Your task to perform on an android device: open app "Etsy: Buy & Sell Unique Items" (install if not already installed) Image 0: 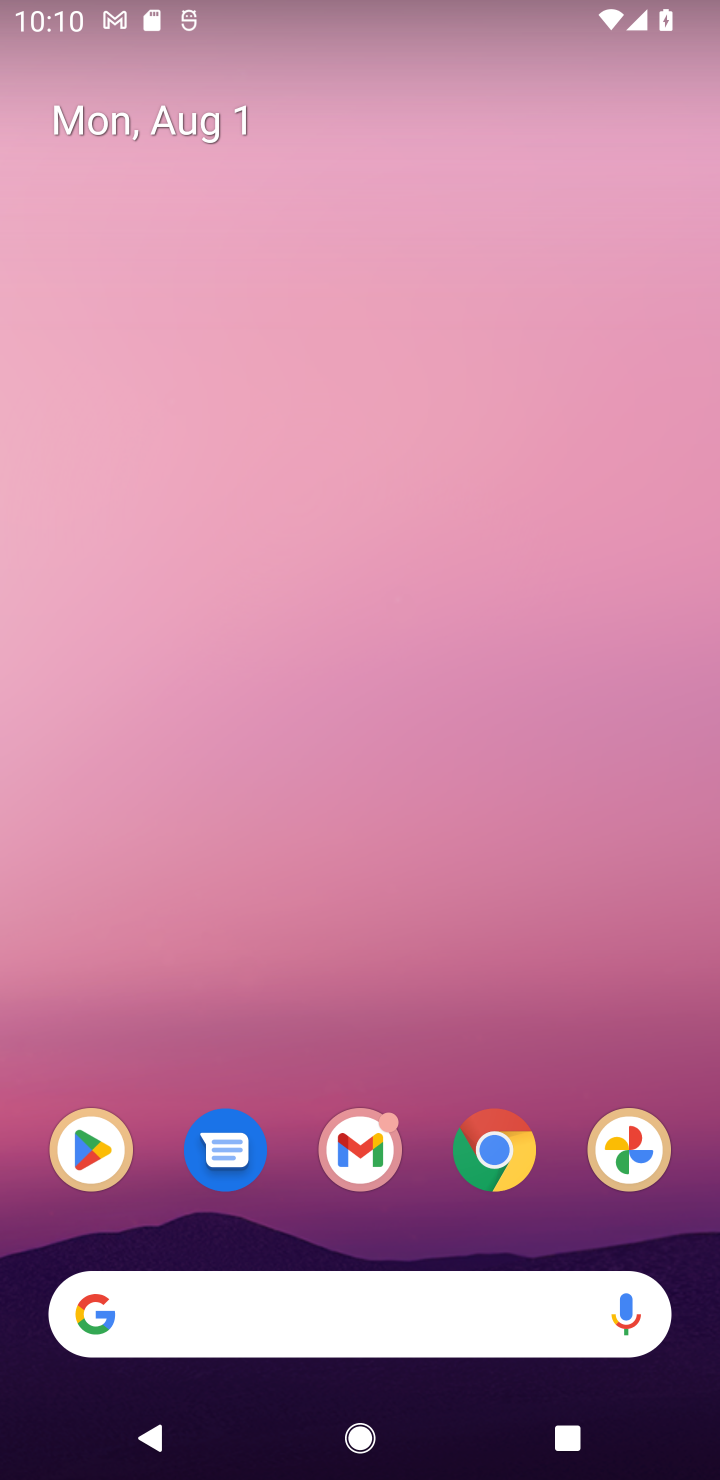
Step 0: drag from (400, 1279) to (356, 22)
Your task to perform on an android device: open app "Etsy: Buy & Sell Unique Items" (install if not already installed) Image 1: 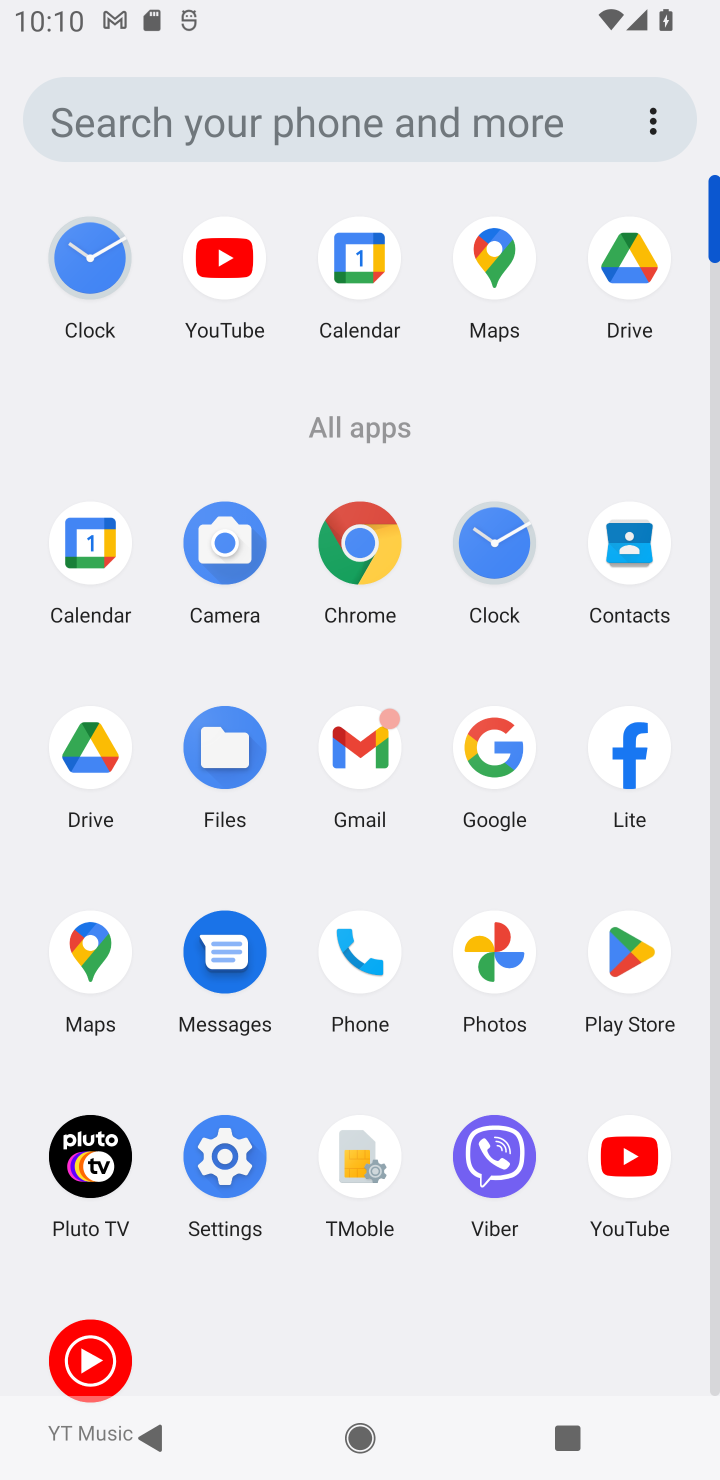
Step 1: click (596, 997)
Your task to perform on an android device: open app "Etsy: Buy & Sell Unique Items" (install if not already installed) Image 2: 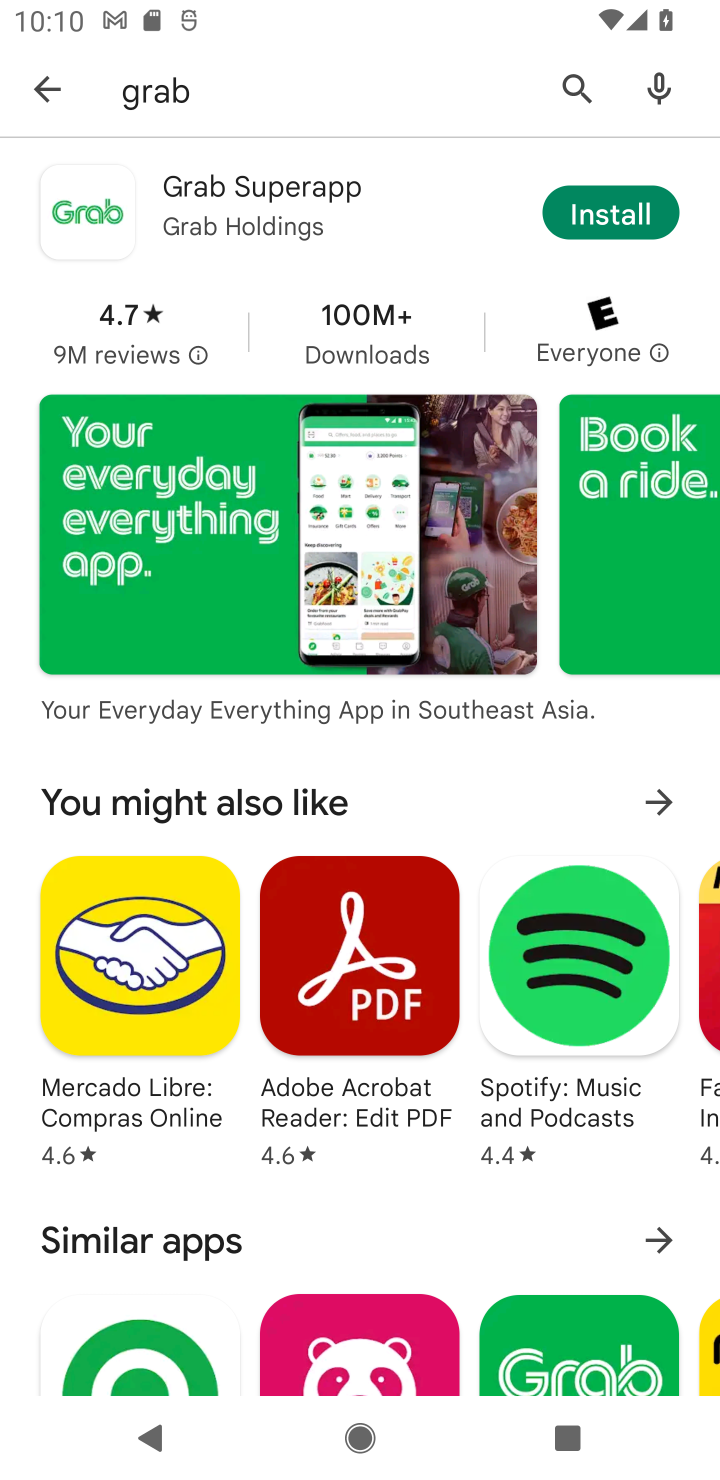
Step 2: click (586, 73)
Your task to perform on an android device: open app "Etsy: Buy & Sell Unique Items" (install if not already installed) Image 3: 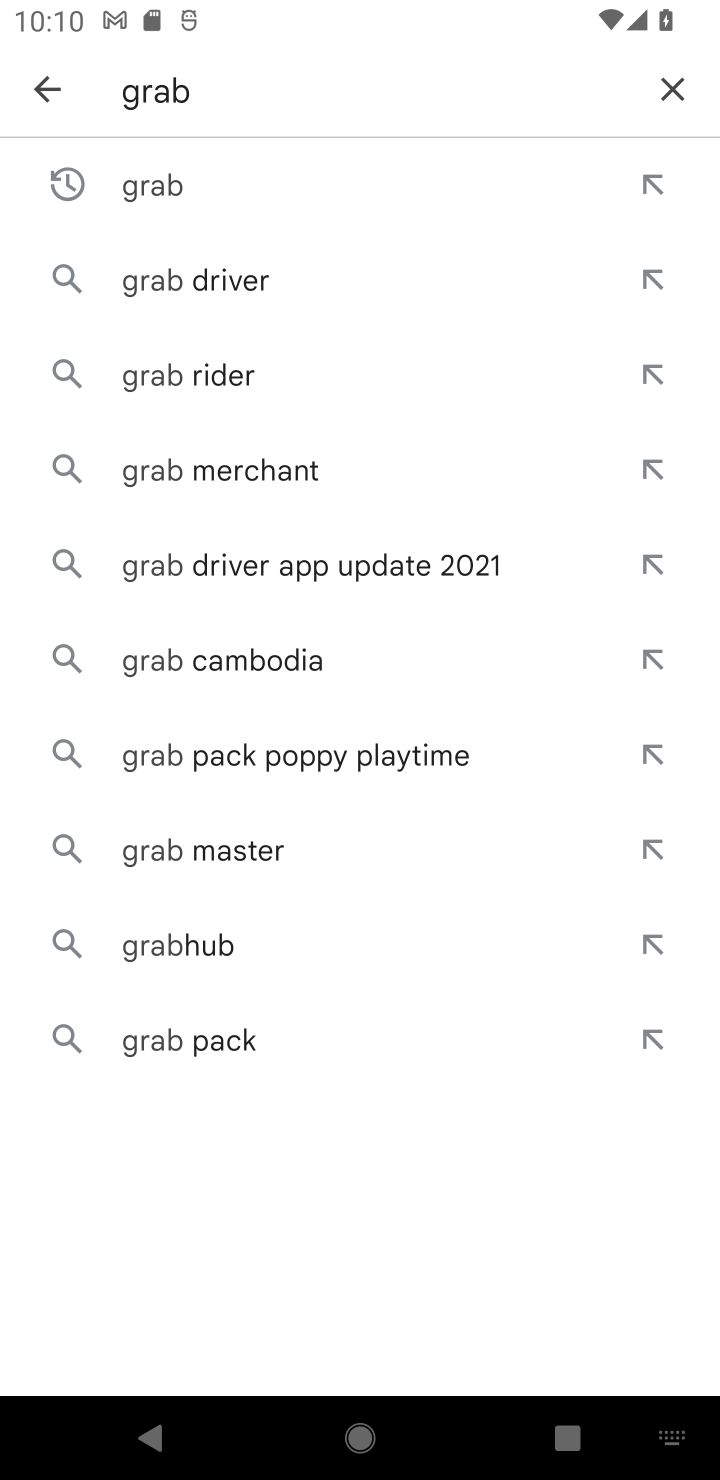
Step 3: click (671, 85)
Your task to perform on an android device: open app "Etsy: Buy & Sell Unique Items" (install if not already installed) Image 4: 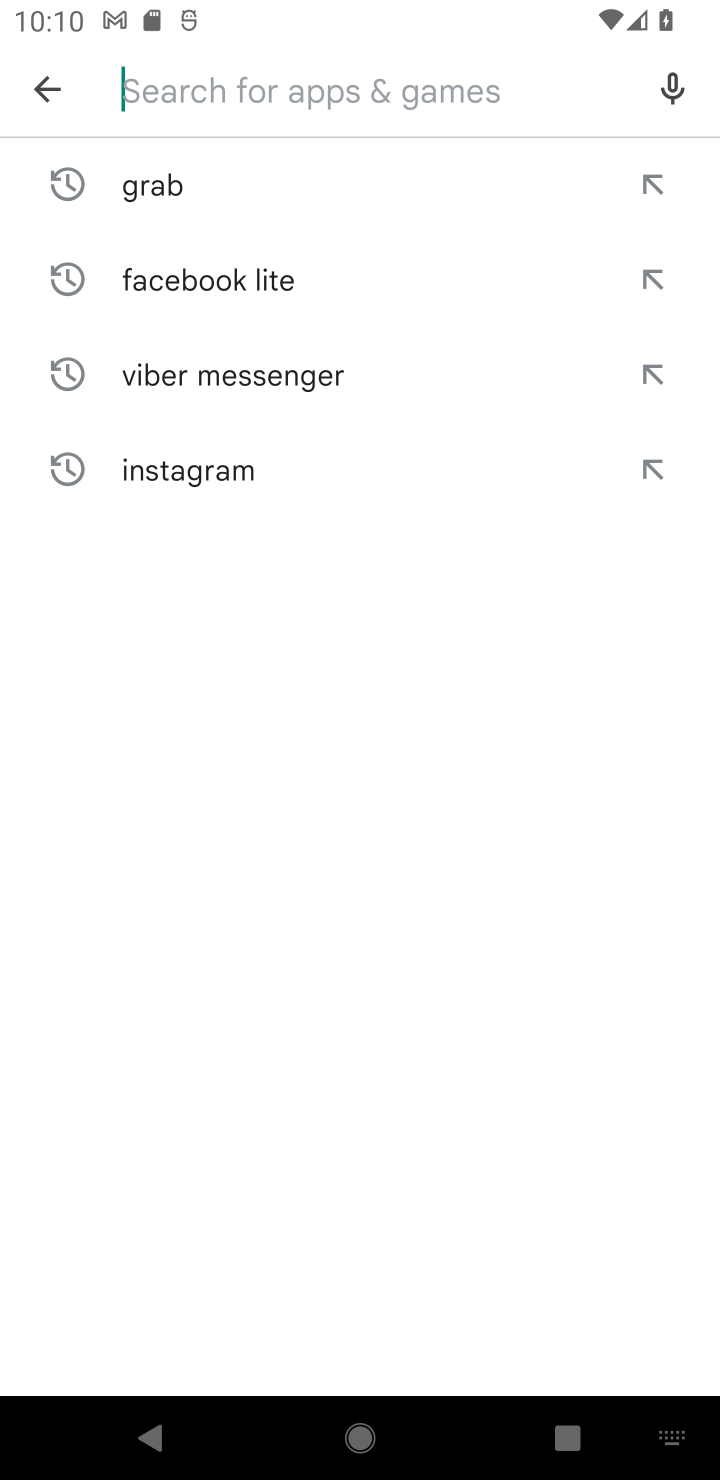
Step 4: type "Etsy: Buy & Sell Unique Items"
Your task to perform on an android device: open app "Etsy: Buy & Sell Unique Items" (install if not already installed) Image 5: 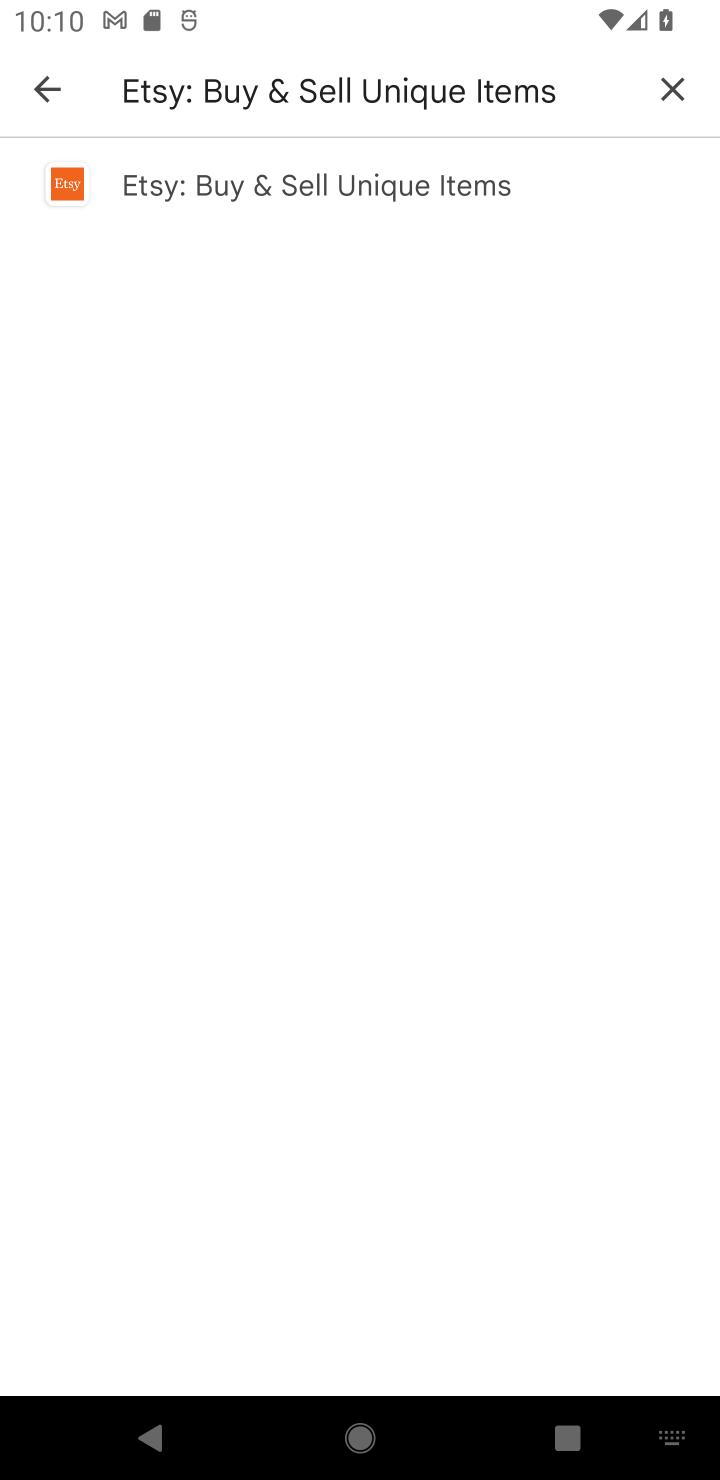
Step 5: click (266, 173)
Your task to perform on an android device: open app "Etsy: Buy & Sell Unique Items" (install if not already installed) Image 6: 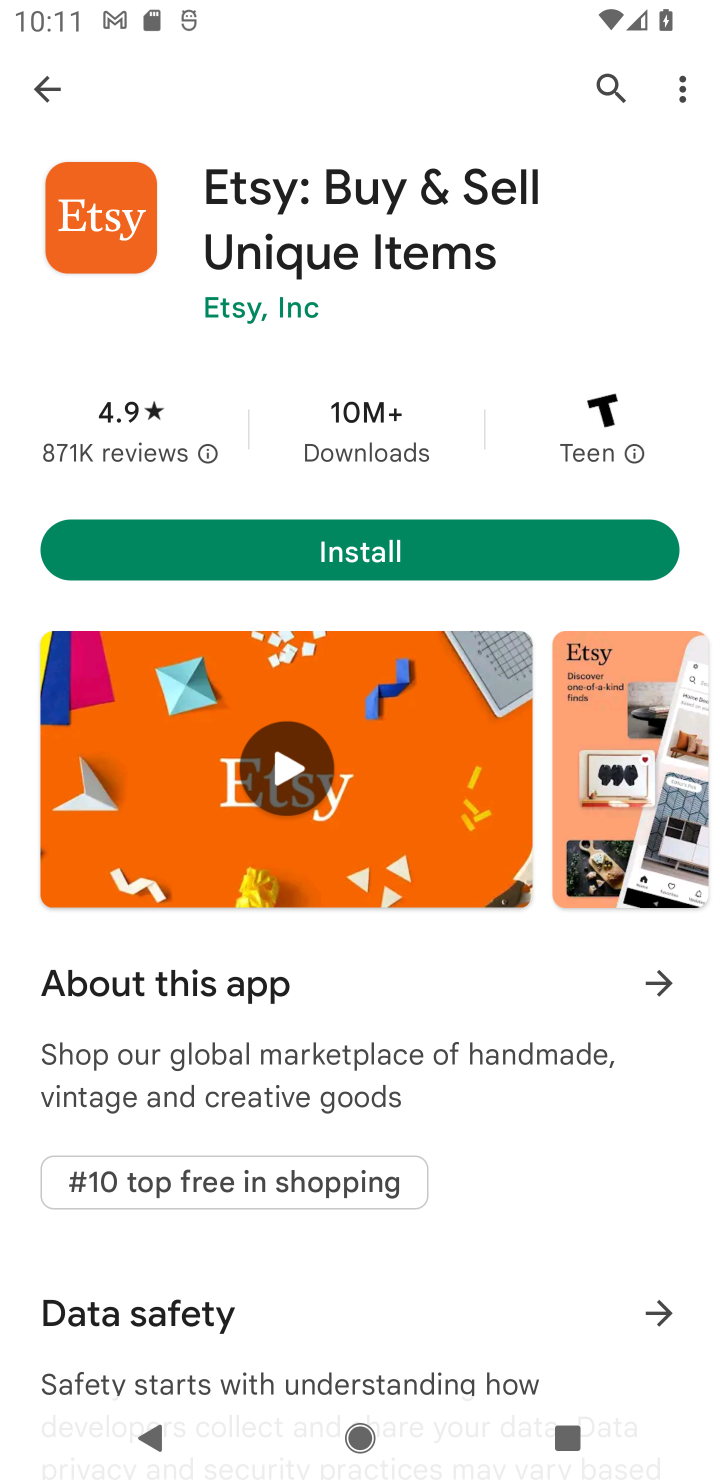
Step 6: click (377, 550)
Your task to perform on an android device: open app "Etsy: Buy & Sell Unique Items" (install if not already installed) Image 7: 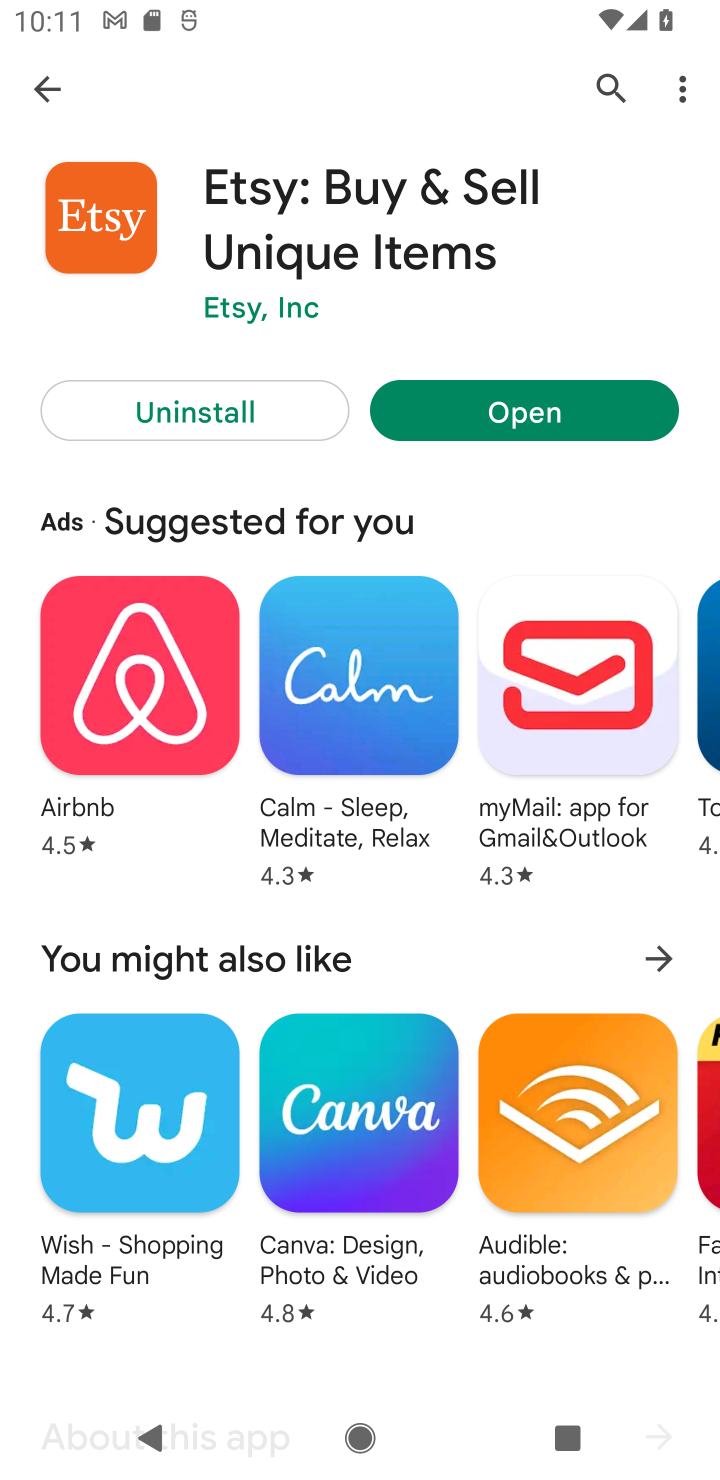
Step 7: click (520, 453)
Your task to perform on an android device: open app "Etsy: Buy & Sell Unique Items" (install if not already installed) Image 8: 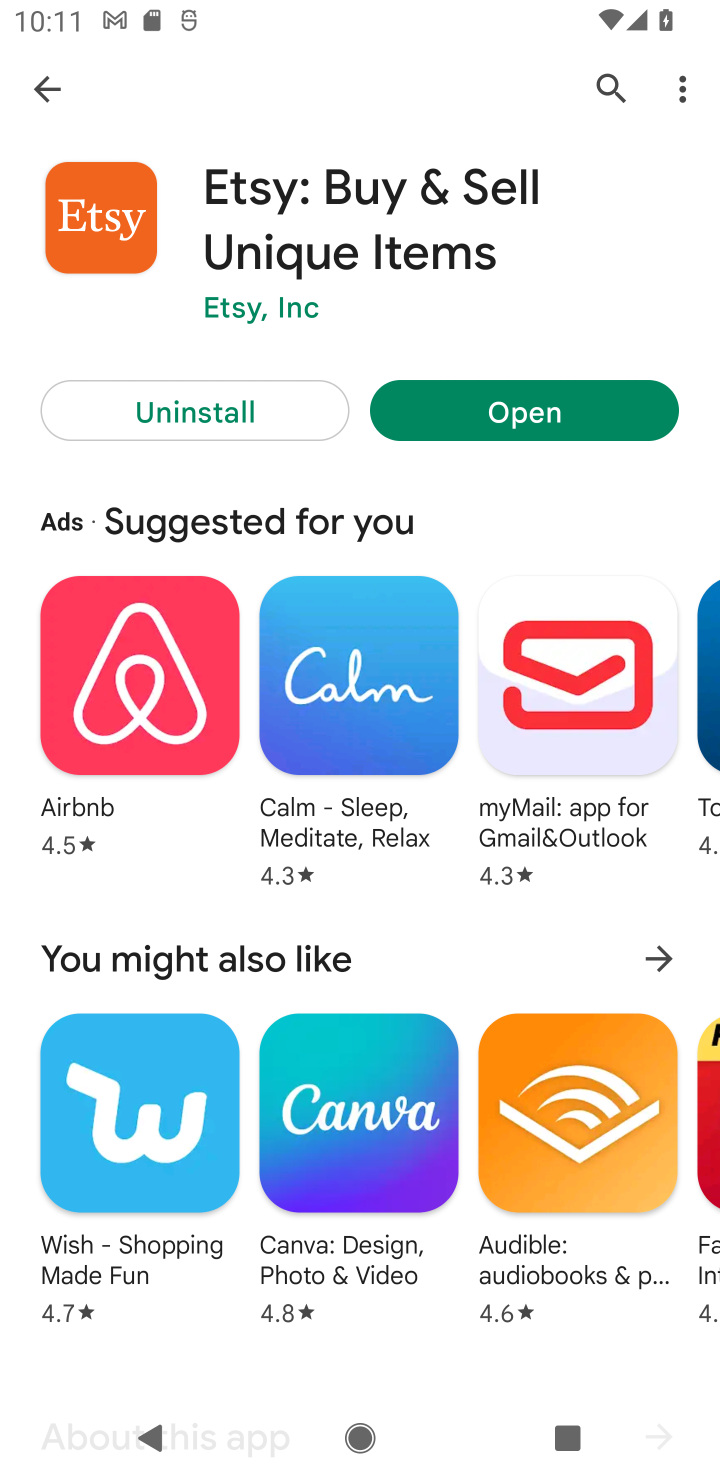
Step 8: click (516, 450)
Your task to perform on an android device: open app "Etsy: Buy & Sell Unique Items" (install if not already installed) Image 9: 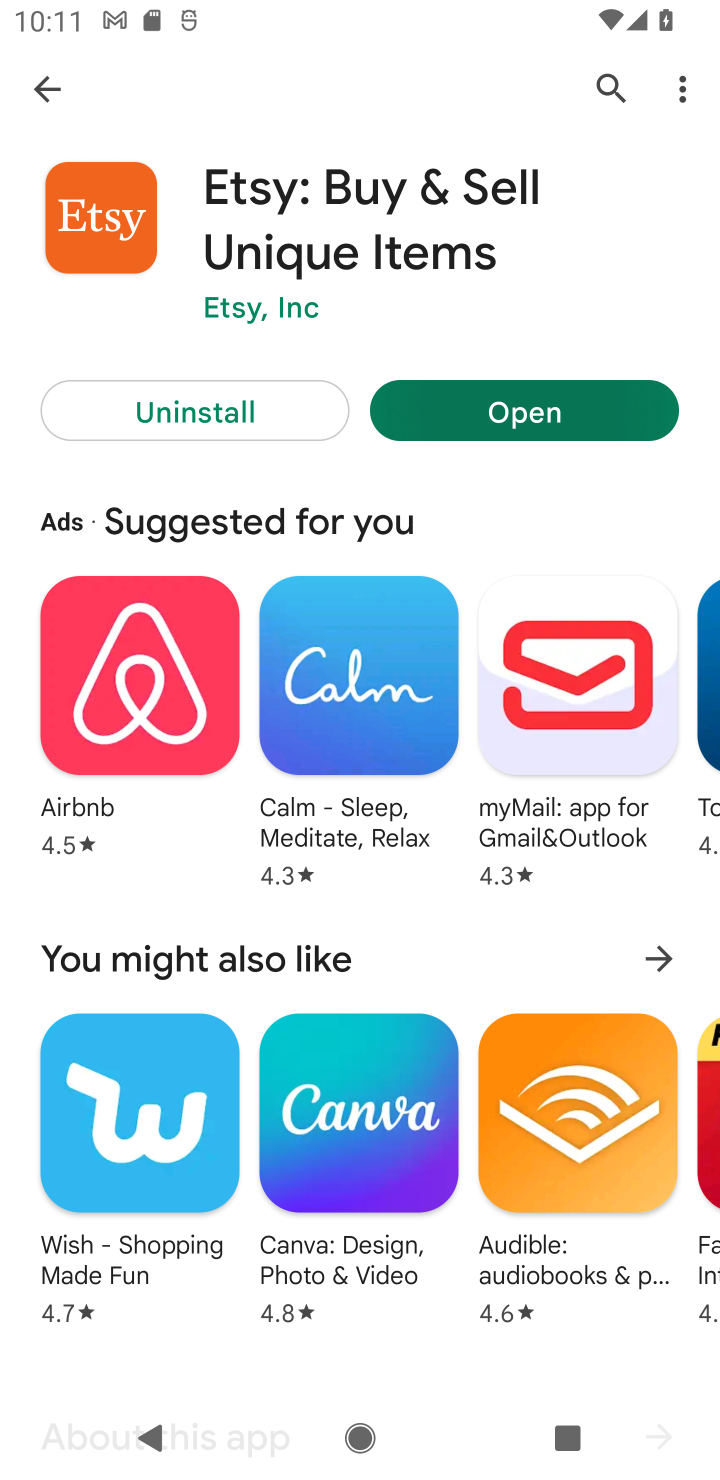
Step 9: click (503, 436)
Your task to perform on an android device: open app "Etsy: Buy & Sell Unique Items" (install if not already installed) Image 10: 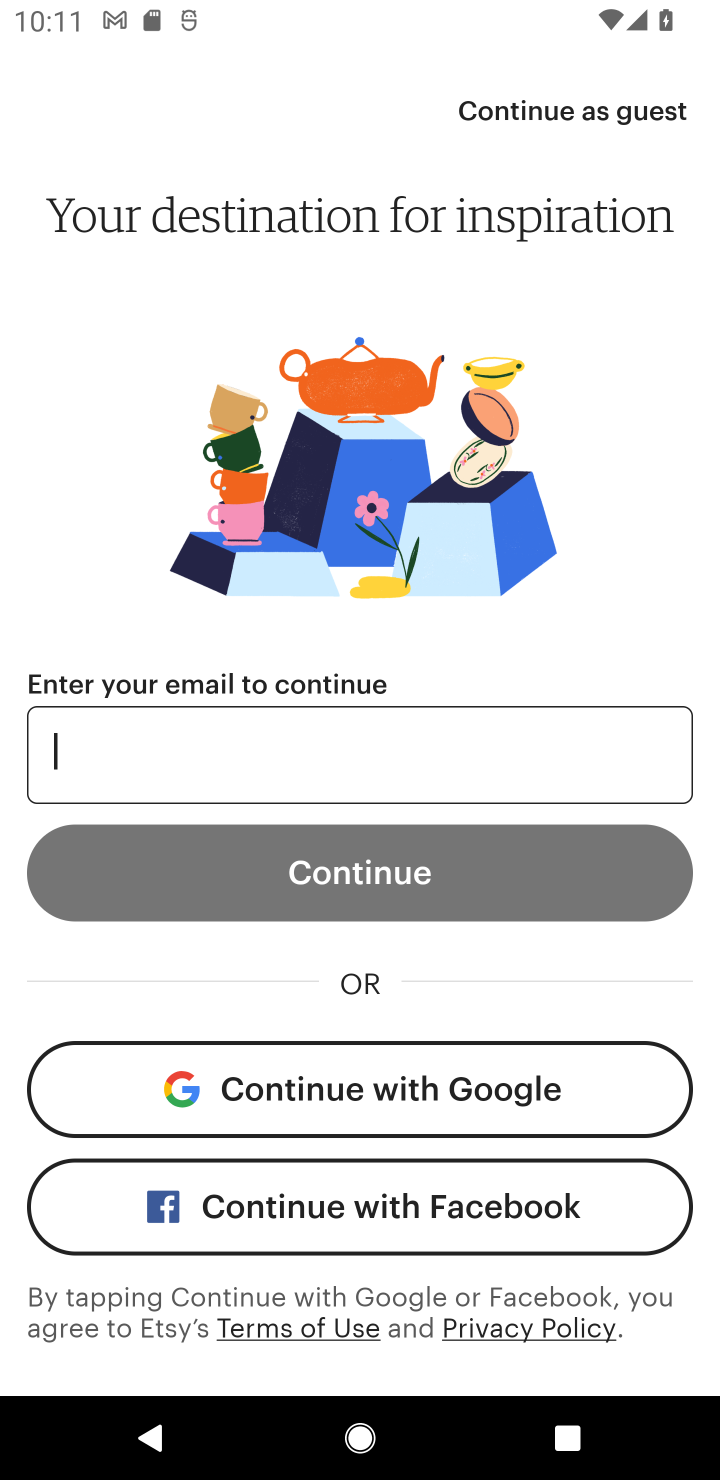
Step 10: task complete